Your task to perform on an android device: change the clock display to digital Image 0: 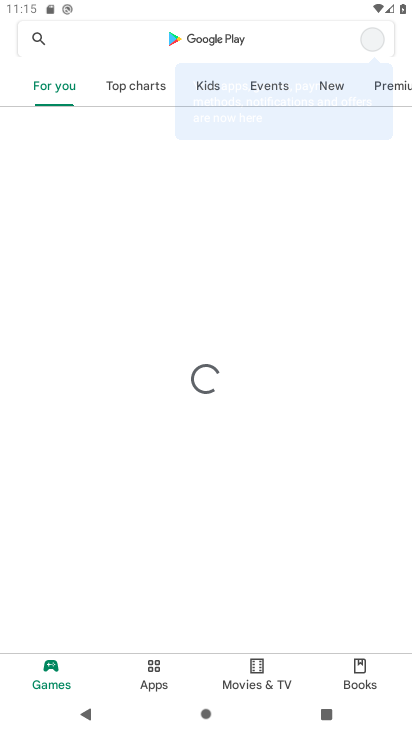
Step 0: press home button
Your task to perform on an android device: change the clock display to digital Image 1: 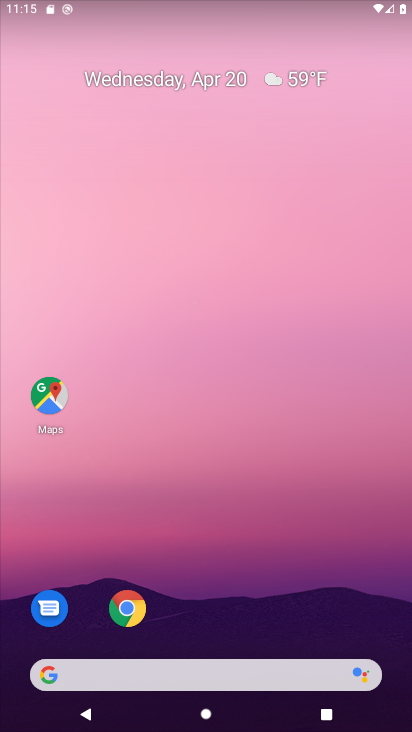
Step 1: drag from (277, 519) to (269, 215)
Your task to perform on an android device: change the clock display to digital Image 2: 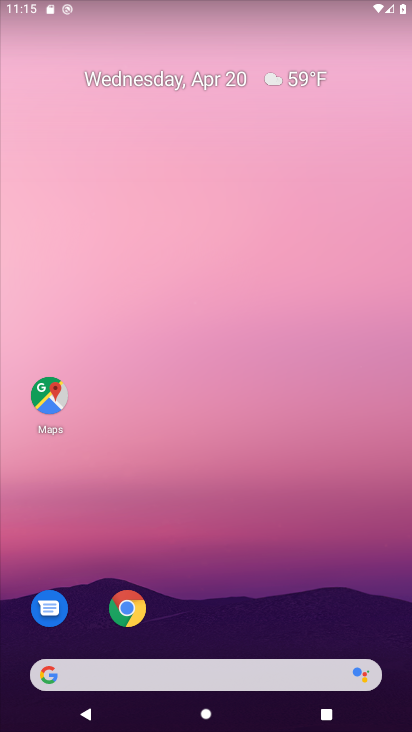
Step 2: drag from (230, 585) to (222, 88)
Your task to perform on an android device: change the clock display to digital Image 3: 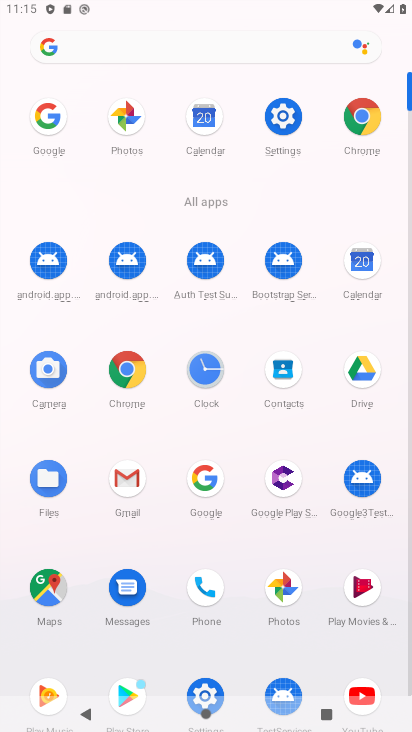
Step 3: click (200, 371)
Your task to perform on an android device: change the clock display to digital Image 4: 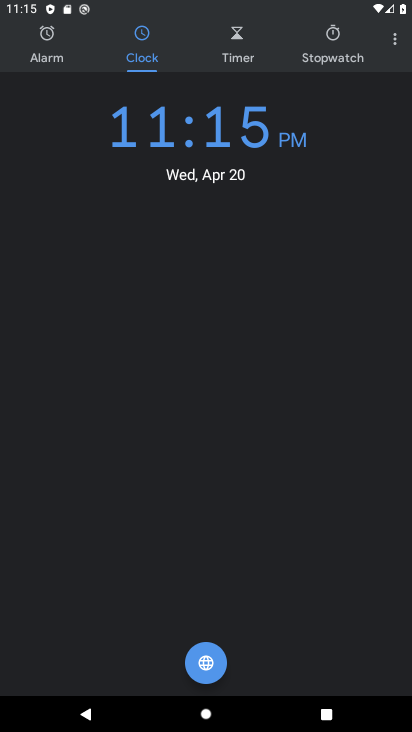
Step 4: click (387, 34)
Your task to perform on an android device: change the clock display to digital Image 5: 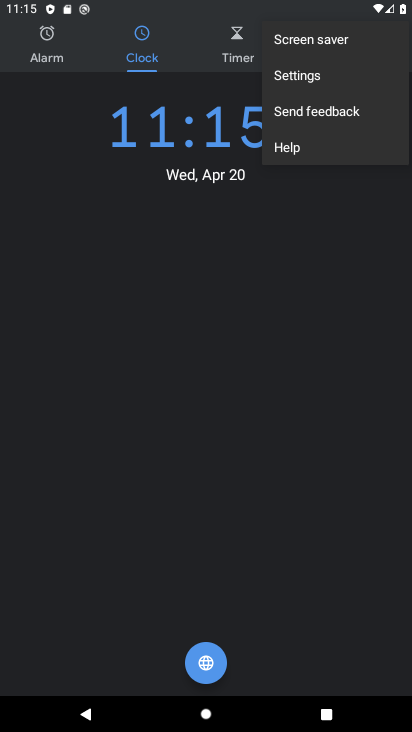
Step 5: click (321, 79)
Your task to perform on an android device: change the clock display to digital Image 6: 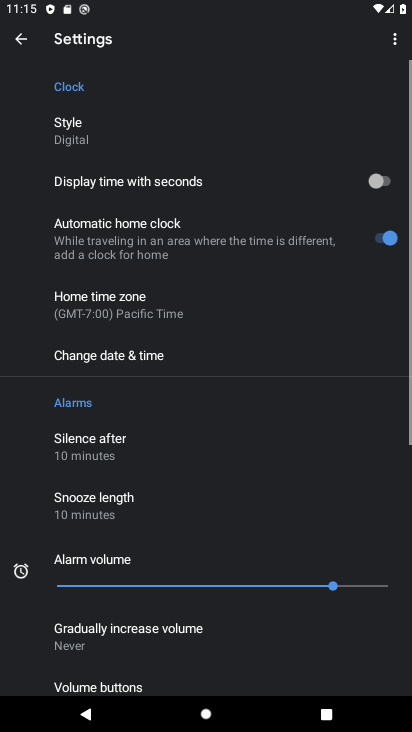
Step 6: click (134, 128)
Your task to perform on an android device: change the clock display to digital Image 7: 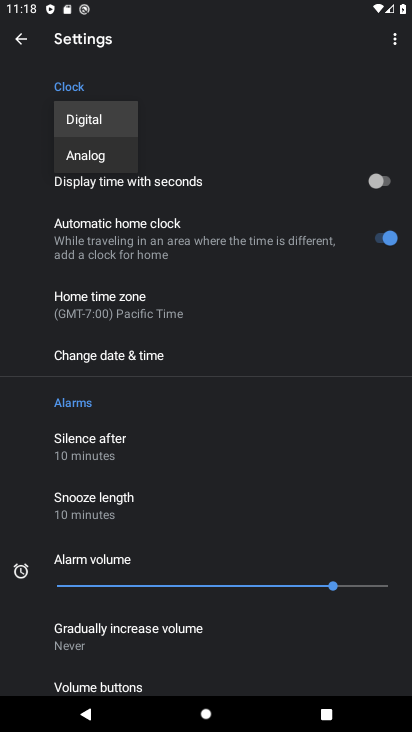
Step 7: task complete